Your task to perform on an android device: change the clock style Image 0: 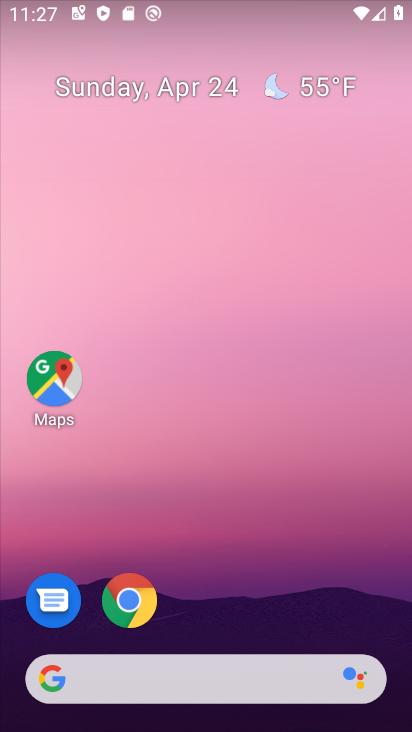
Step 0: drag from (267, 639) to (292, 143)
Your task to perform on an android device: change the clock style Image 1: 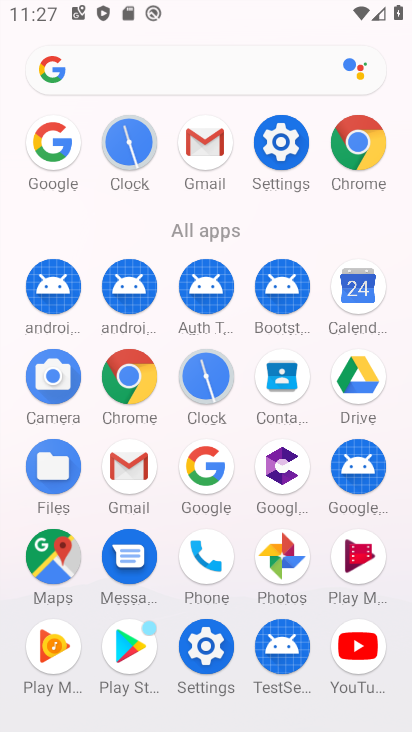
Step 1: click (204, 375)
Your task to perform on an android device: change the clock style Image 2: 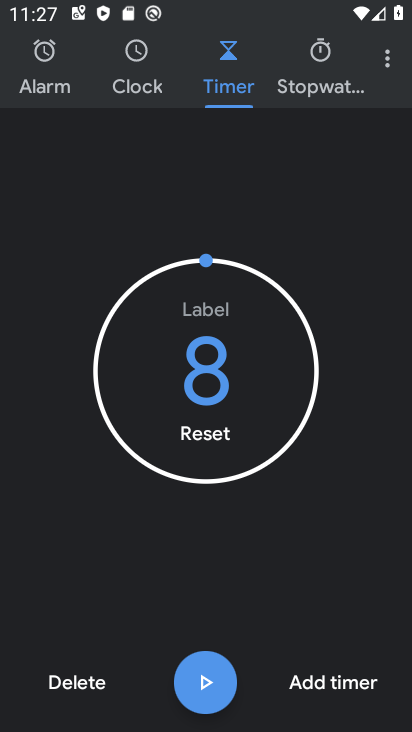
Step 2: click (384, 65)
Your task to perform on an android device: change the clock style Image 3: 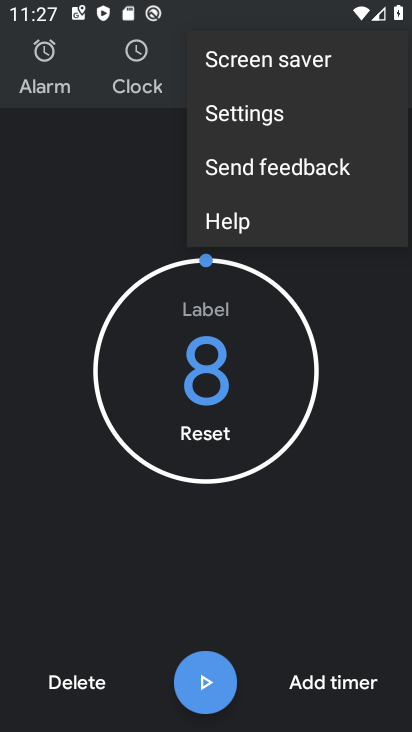
Step 3: click (266, 119)
Your task to perform on an android device: change the clock style Image 4: 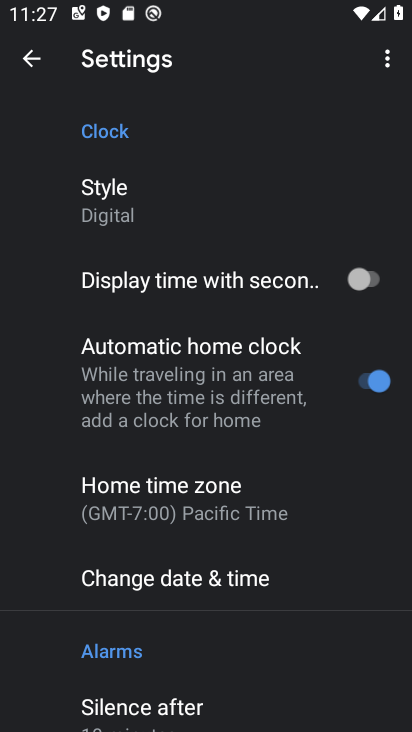
Step 4: click (188, 215)
Your task to perform on an android device: change the clock style Image 5: 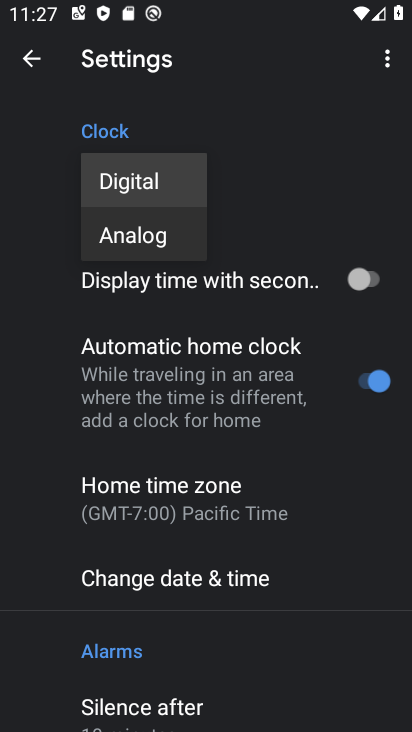
Step 5: click (166, 234)
Your task to perform on an android device: change the clock style Image 6: 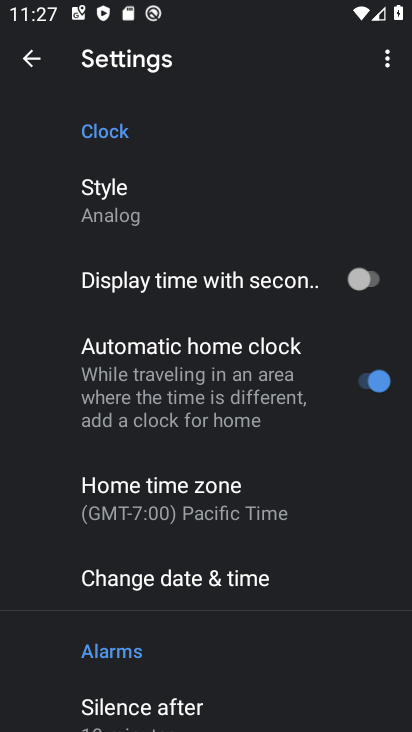
Step 6: task complete